Your task to perform on an android device: open app "Messages" (install if not already installed) and enter user name: "Hersey@inbox.com" and password: "facings" Image 0: 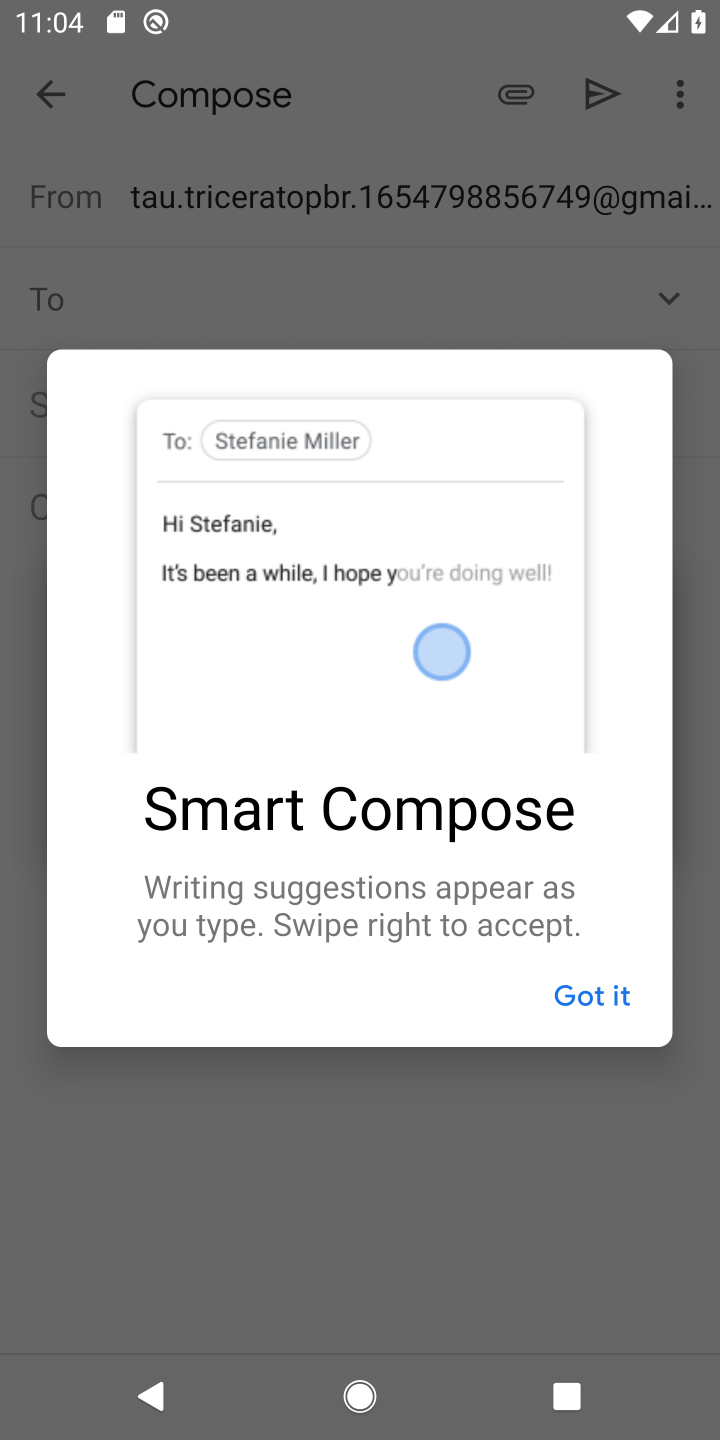
Step 0: press home button
Your task to perform on an android device: open app "Messages" (install if not already installed) and enter user name: "Hersey@inbox.com" and password: "facings" Image 1: 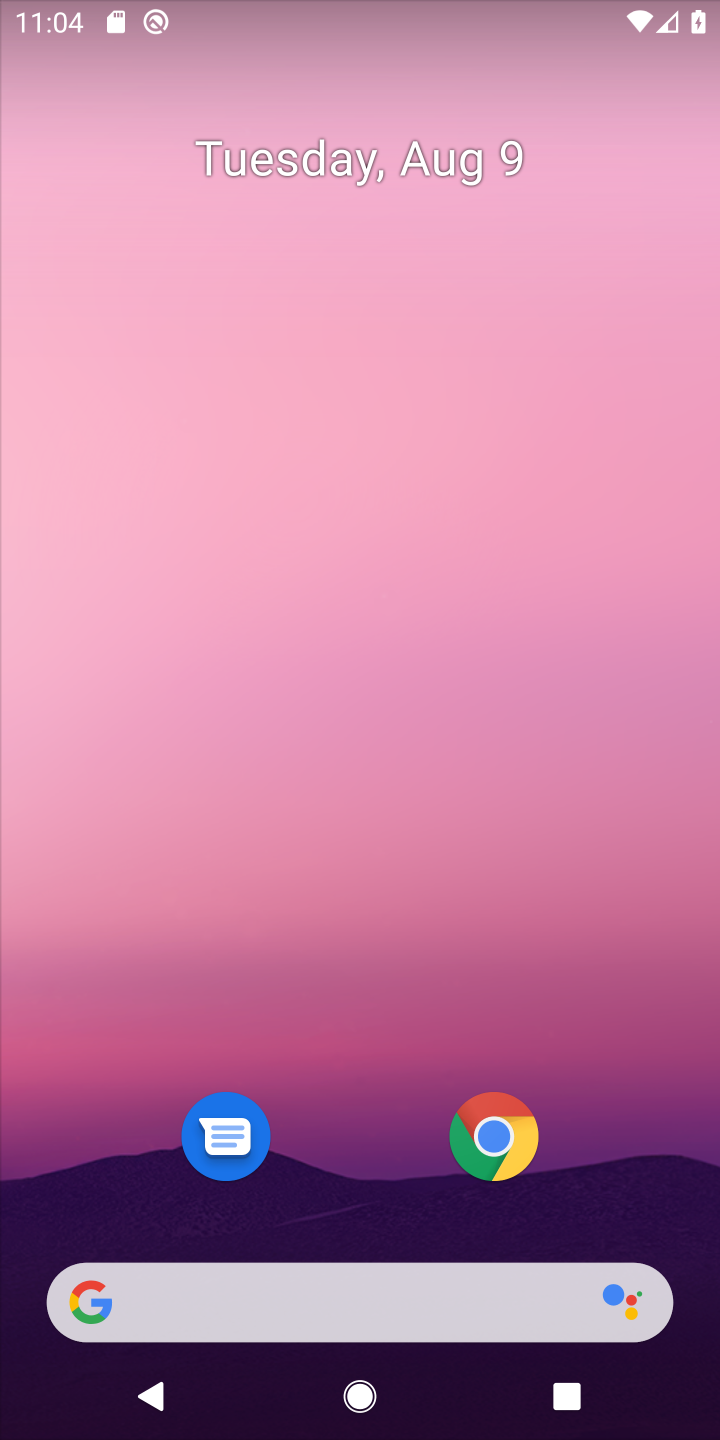
Step 1: drag from (331, 873) to (232, 341)
Your task to perform on an android device: open app "Messages" (install if not already installed) and enter user name: "Hersey@inbox.com" and password: "facings" Image 2: 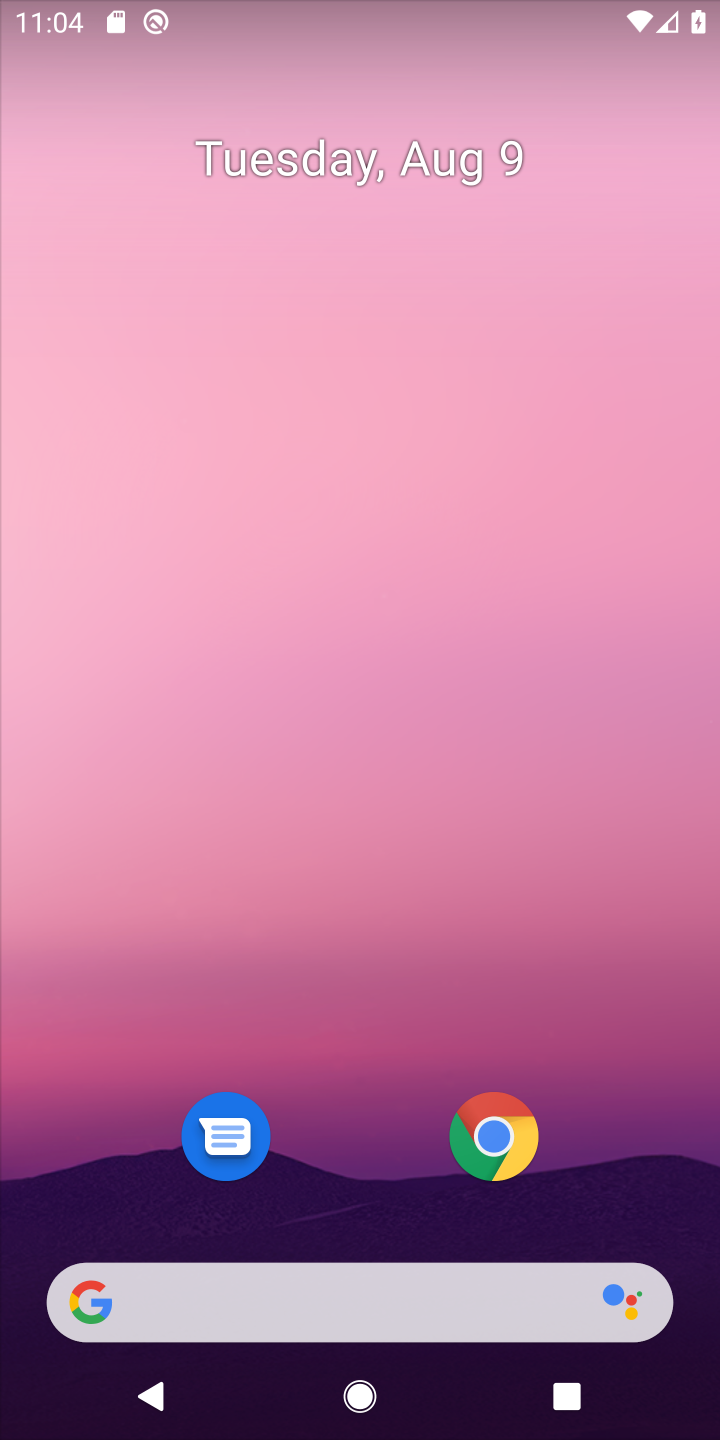
Step 2: drag from (312, 1074) to (346, 175)
Your task to perform on an android device: open app "Messages" (install if not already installed) and enter user name: "Hersey@inbox.com" and password: "facings" Image 3: 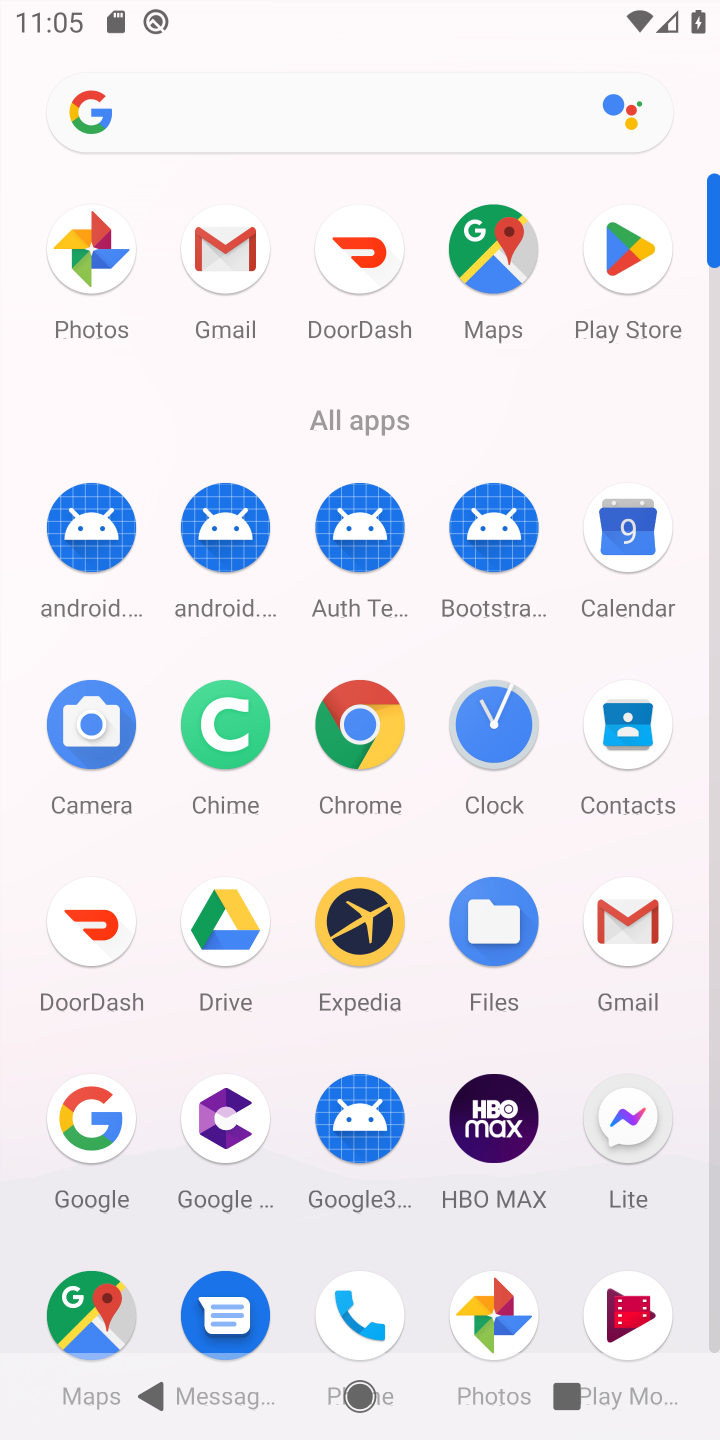
Step 3: click (615, 273)
Your task to perform on an android device: open app "Messages" (install if not already installed) and enter user name: "Hersey@inbox.com" and password: "facings" Image 4: 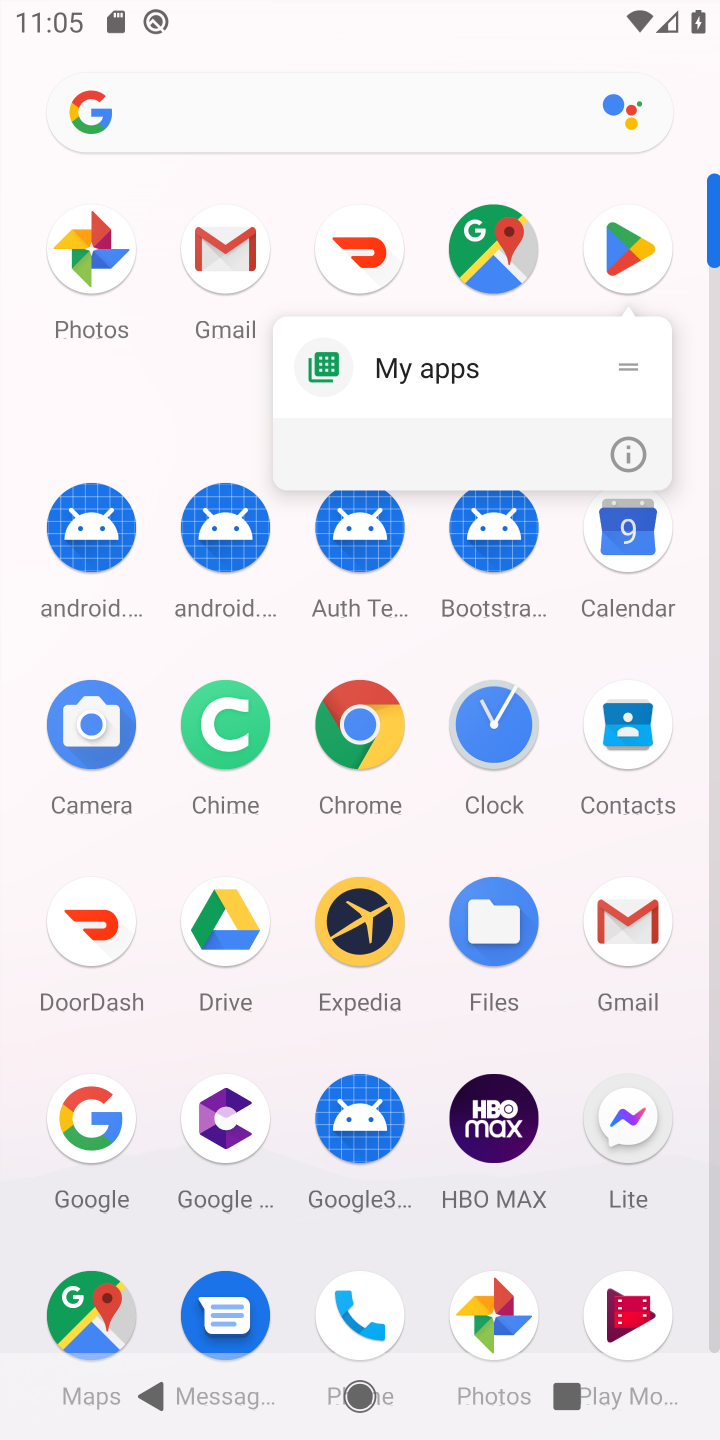
Step 4: click (615, 273)
Your task to perform on an android device: open app "Messages" (install if not already installed) and enter user name: "Hersey@inbox.com" and password: "facings" Image 5: 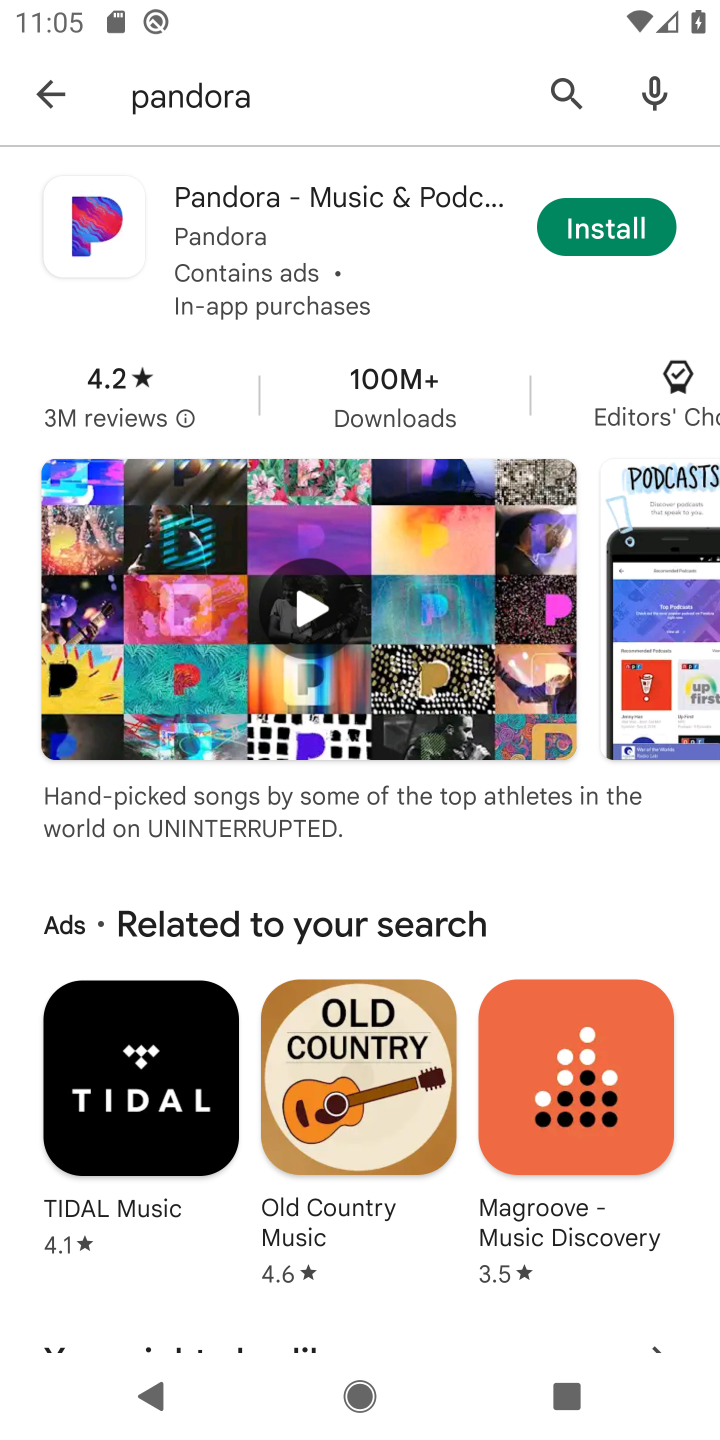
Step 5: click (263, 99)
Your task to perform on an android device: open app "Messages" (install if not already installed) and enter user name: "Hersey@inbox.com" and password: "facings" Image 6: 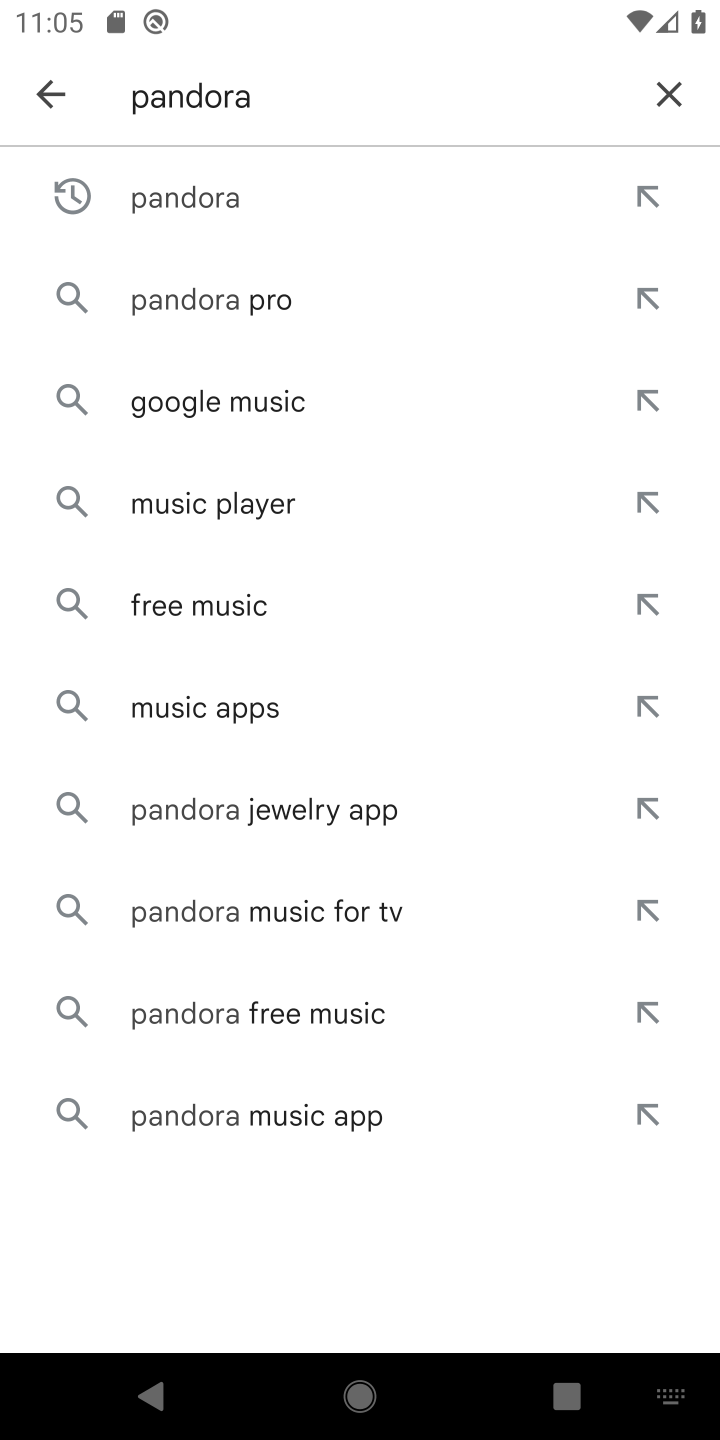
Step 6: click (658, 87)
Your task to perform on an android device: open app "Messages" (install if not already installed) and enter user name: "Hersey@inbox.com" and password: "facings" Image 7: 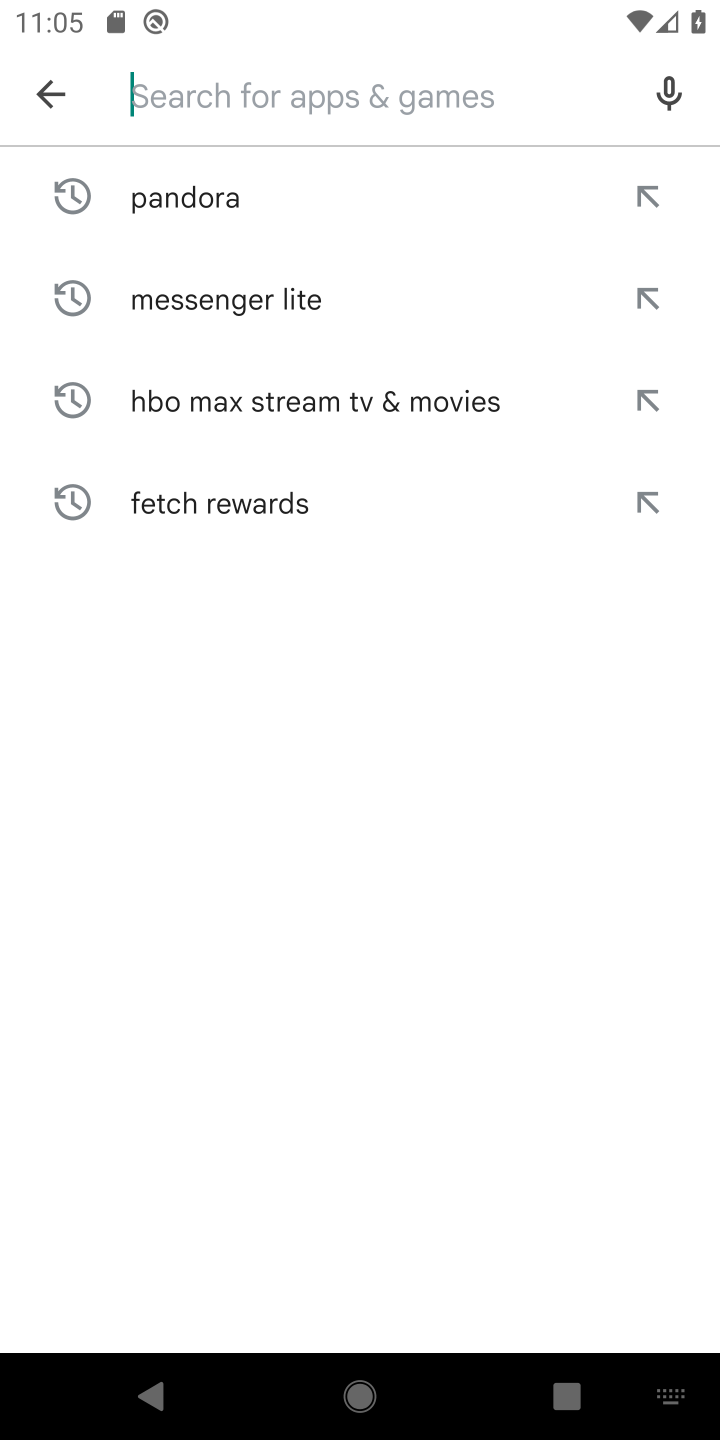
Step 7: type "Messages"
Your task to perform on an android device: open app "Messages" (install if not already installed) and enter user name: "Hersey@inbox.com" and password: "facings" Image 8: 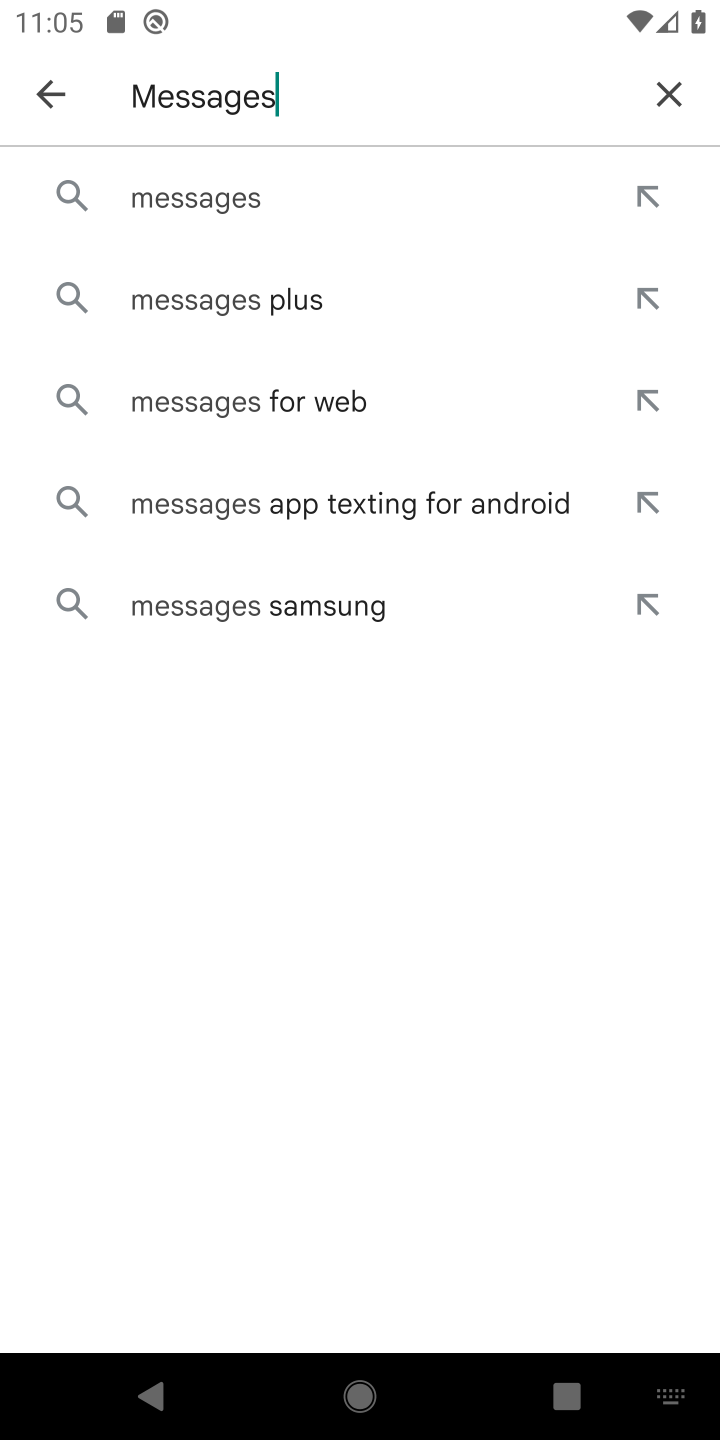
Step 8: click (290, 194)
Your task to perform on an android device: open app "Messages" (install if not already installed) and enter user name: "Hersey@inbox.com" and password: "facings" Image 9: 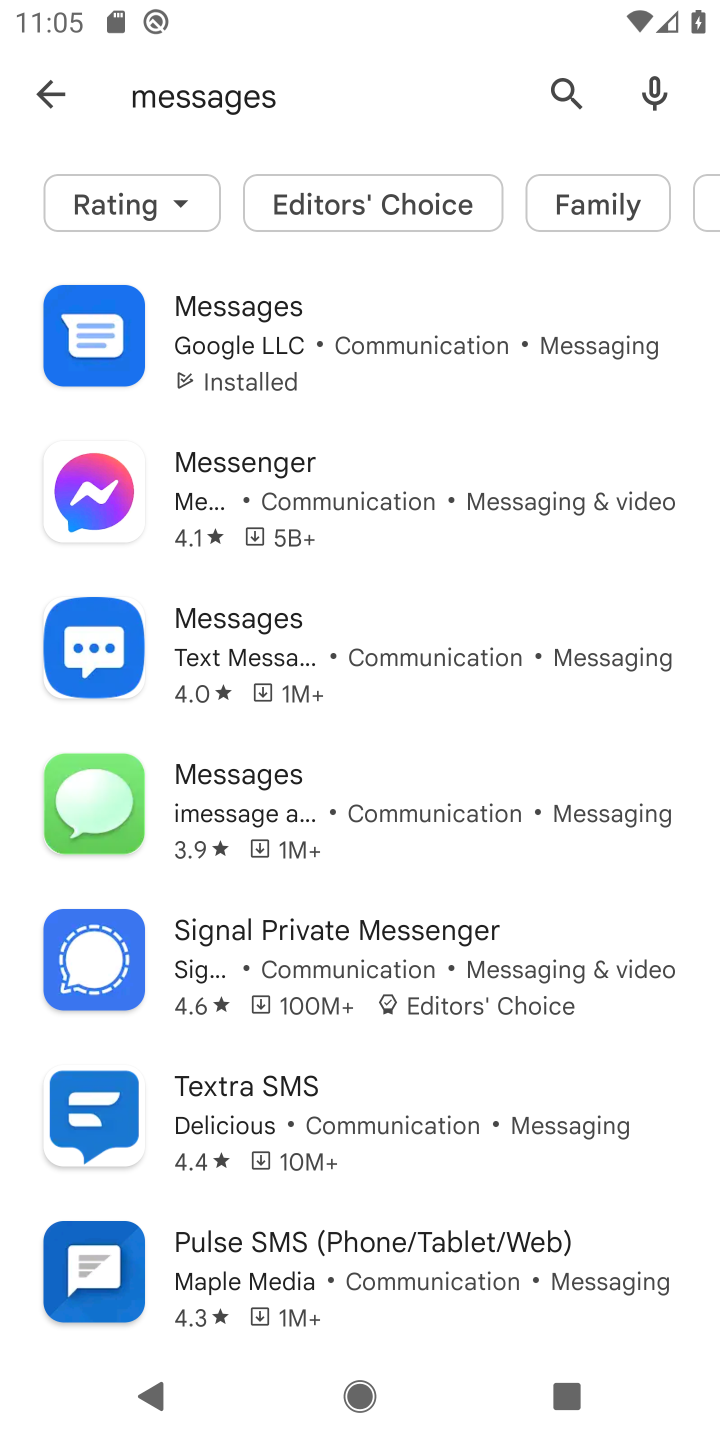
Step 9: click (312, 354)
Your task to perform on an android device: open app "Messages" (install if not already installed) and enter user name: "Hersey@inbox.com" and password: "facings" Image 10: 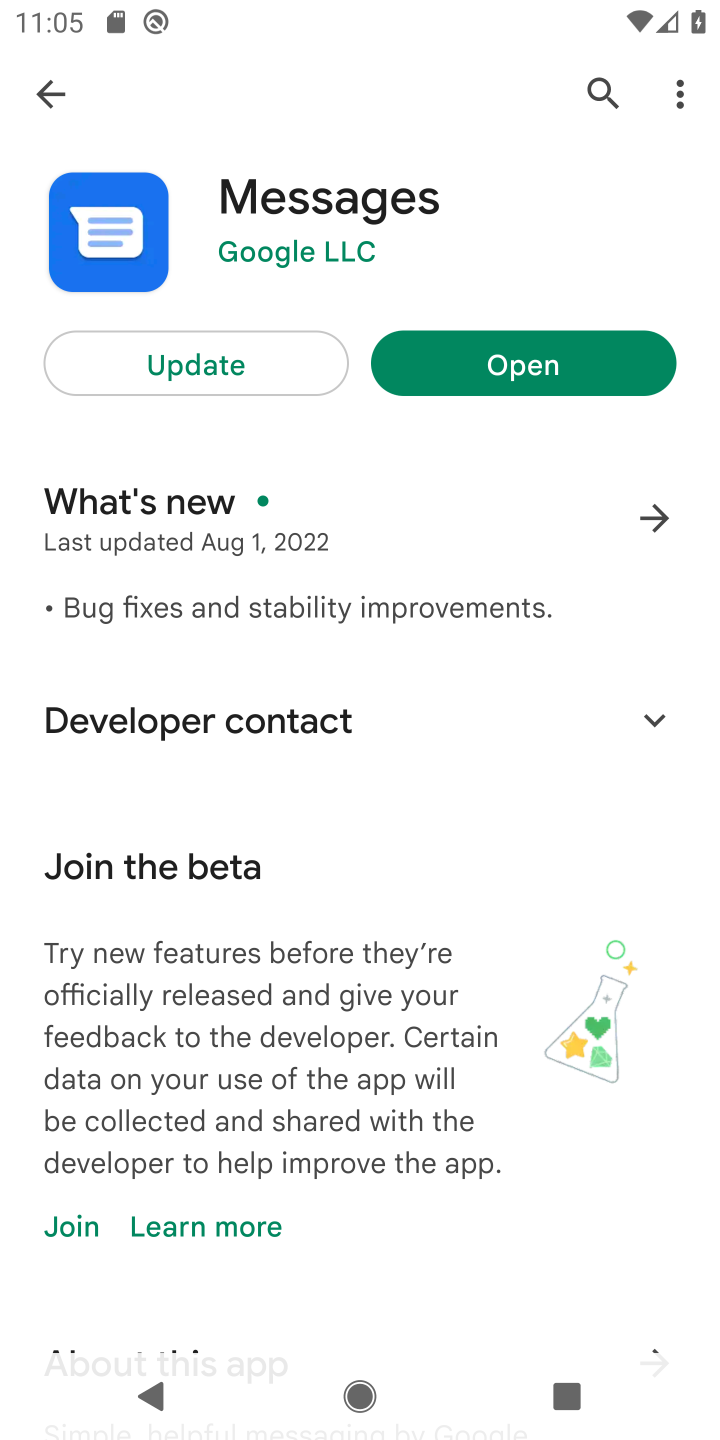
Step 10: click (576, 381)
Your task to perform on an android device: open app "Messages" (install if not already installed) and enter user name: "Hersey@inbox.com" and password: "facings" Image 11: 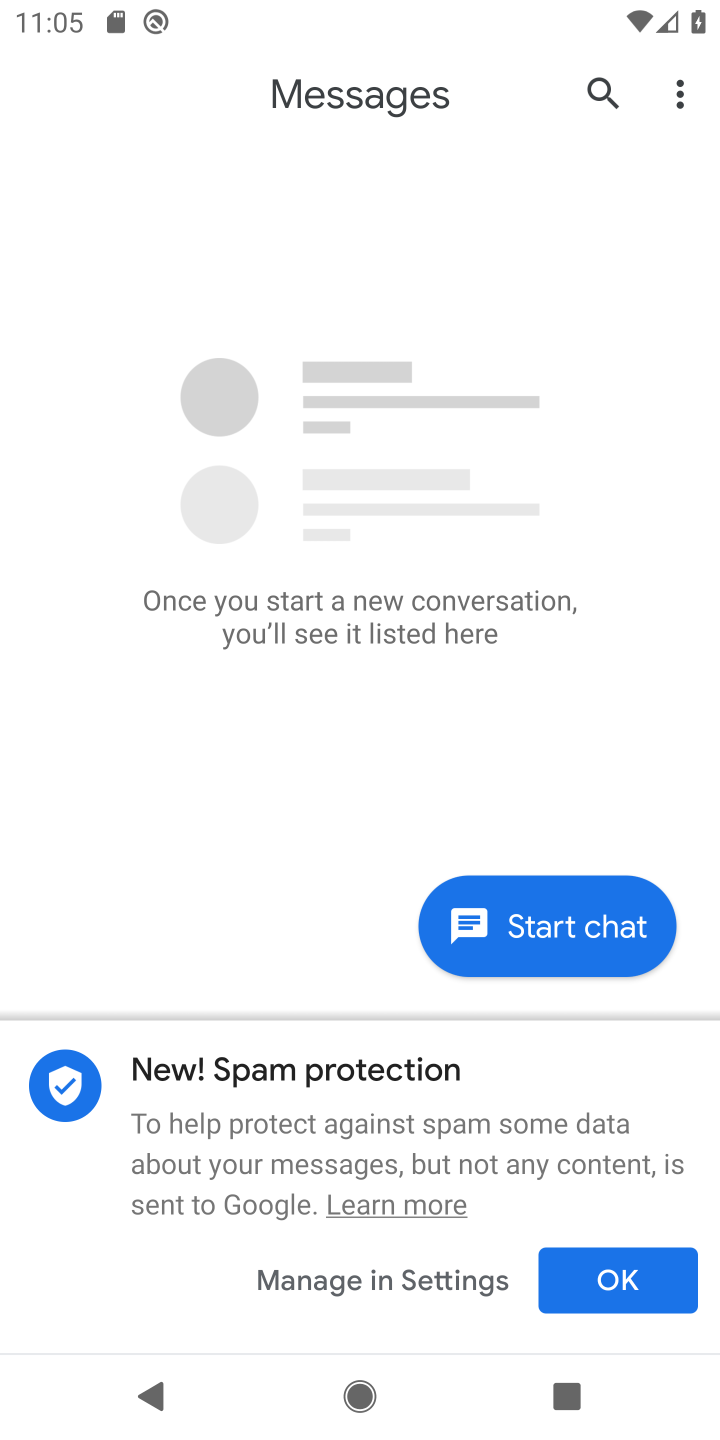
Step 11: click (609, 1246)
Your task to perform on an android device: open app "Messages" (install if not already installed) and enter user name: "Hersey@inbox.com" and password: "facings" Image 12: 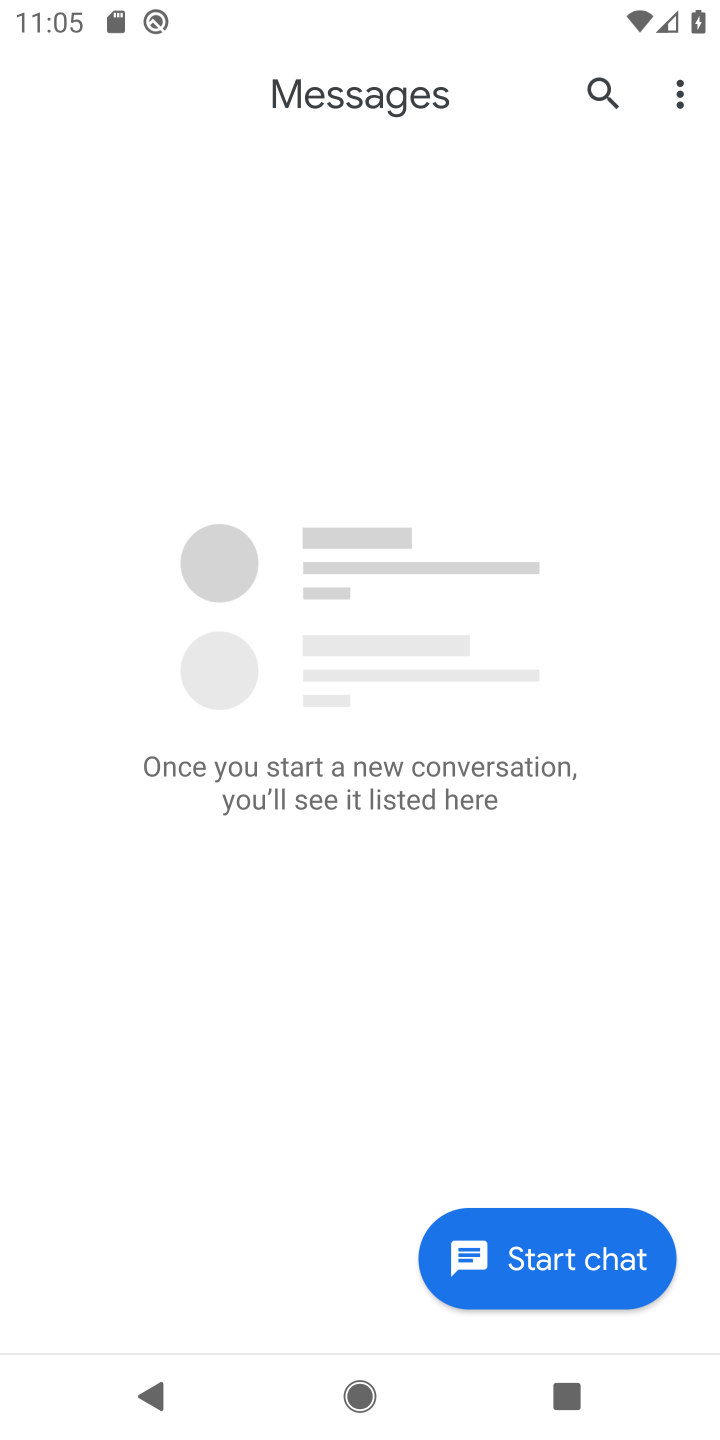
Step 12: task complete